Your task to perform on an android device: What's the weather today? Image 0: 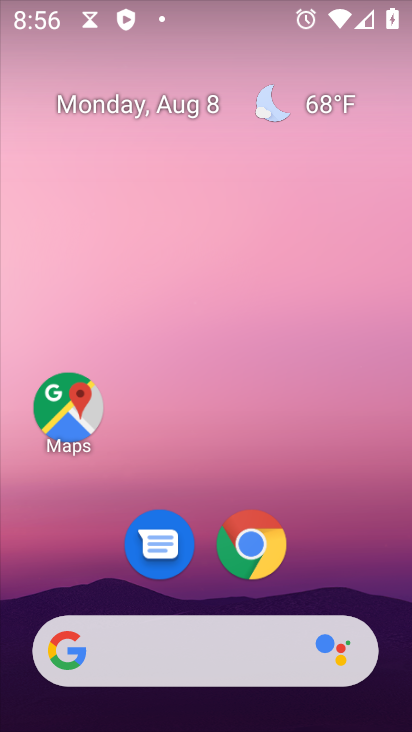
Step 0: press home button
Your task to perform on an android device: What's the weather today? Image 1: 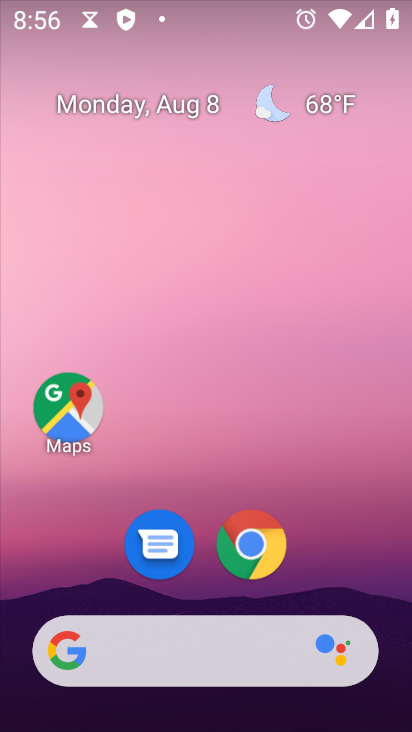
Step 1: click (324, 112)
Your task to perform on an android device: What's the weather today? Image 2: 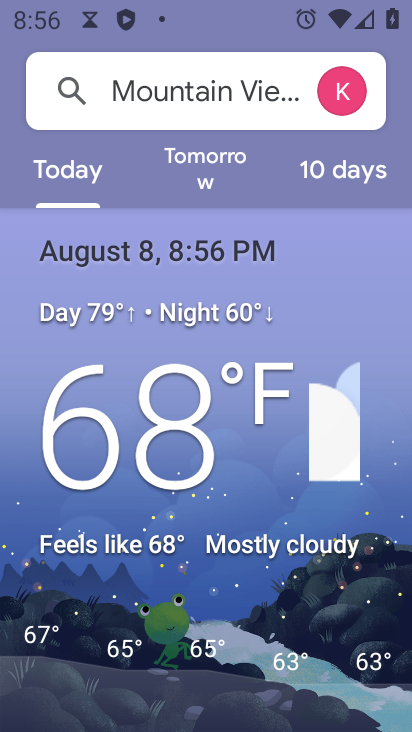
Step 2: task complete